Your task to perform on an android device: What is the recent news? Image 0: 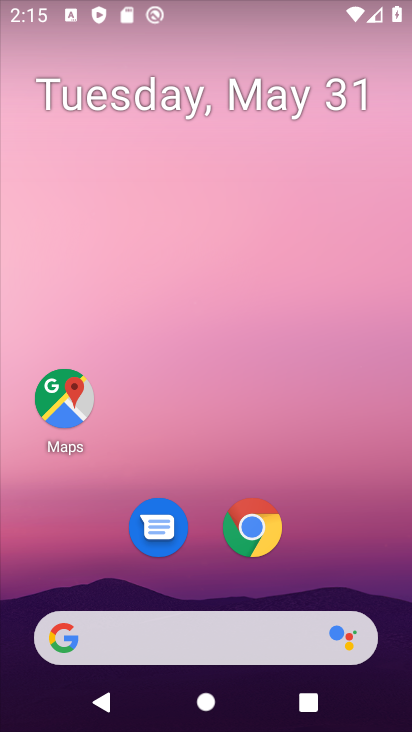
Step 0: drag from (24, 272) to (384, 257)
Your task to perform on an android device: What is the recent news? Image 1: 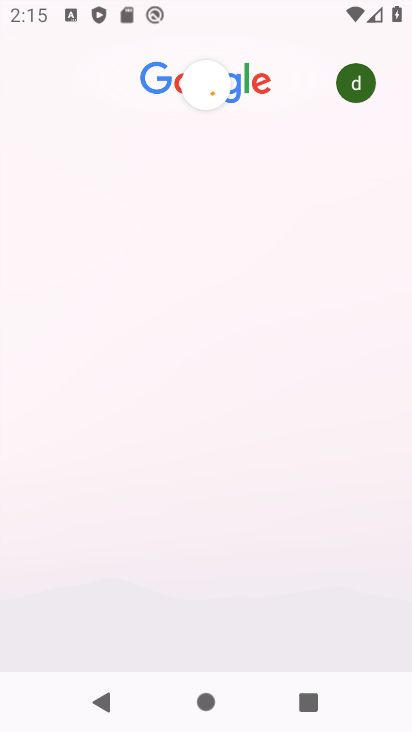
Step 1: task complete